Your task to perform on an android device: See recent photos Image 0: 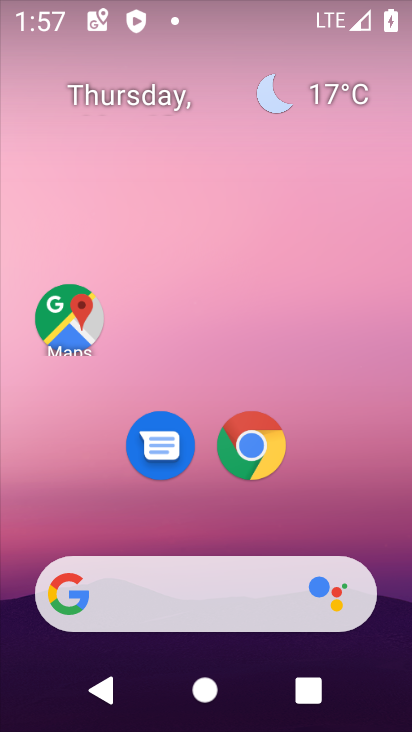
Step 0: drag from (333, 482) to (226, 172)
Your task to perform on an android device: See recent photos Image 1: 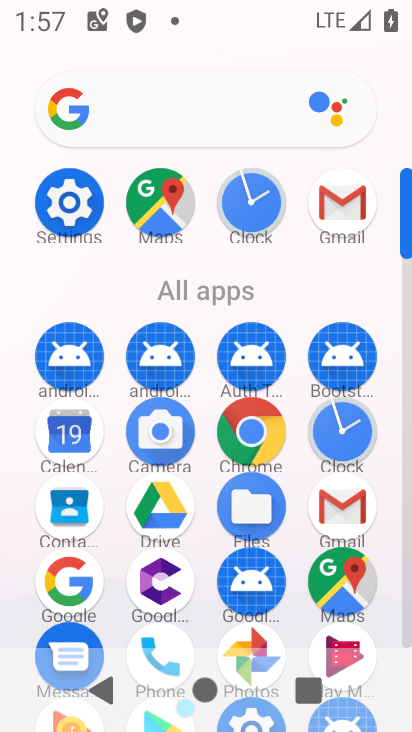
Step 1: drag from (122, 535) to (112, 302)
Your task to perform on an android device: See recent photos Image 2: 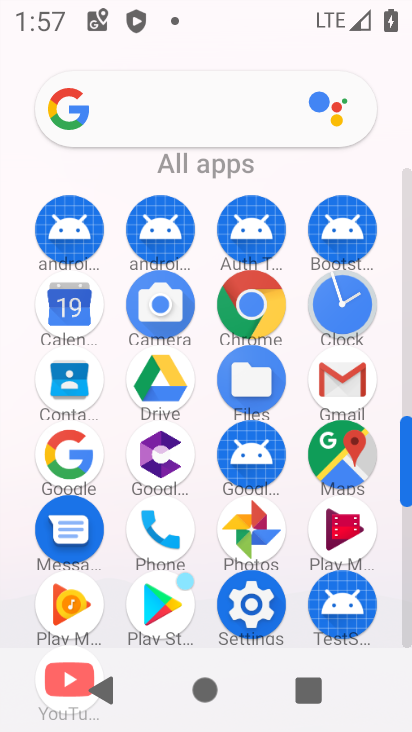
Step 2: click (258, 528)
Your task to perform on an android device: See recent photos Image 3: 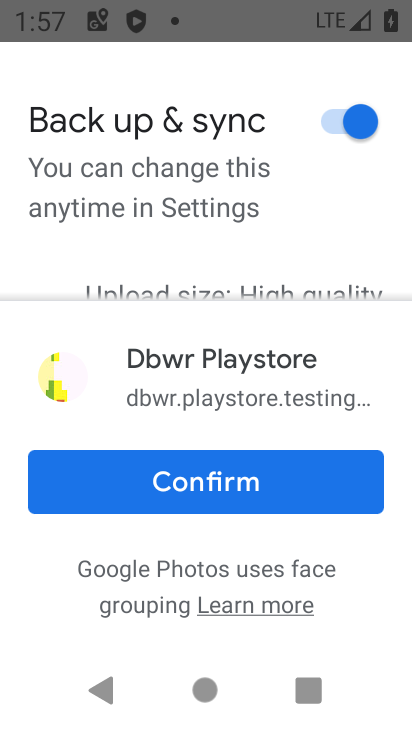
Step 3: click (214, 482)
Your task to perform on an android device: See recent photos Image 4: 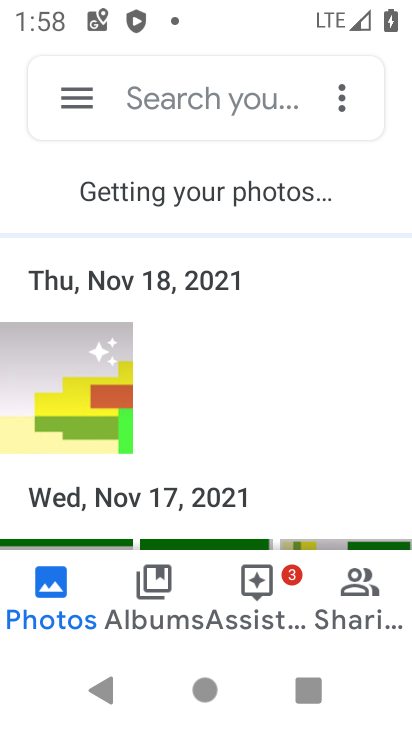
Step 4: click (226, 179)
Your task to perform on an android device: See recent photos Image 5: 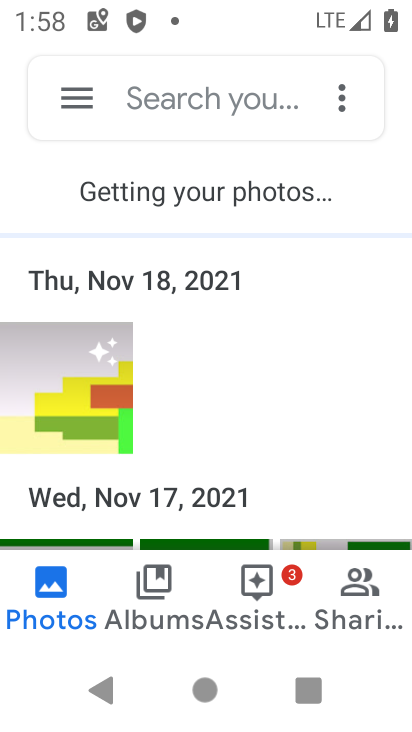
Step 5: click (222, 375)
Your task to perform on an android device: See recent photos Image 6: 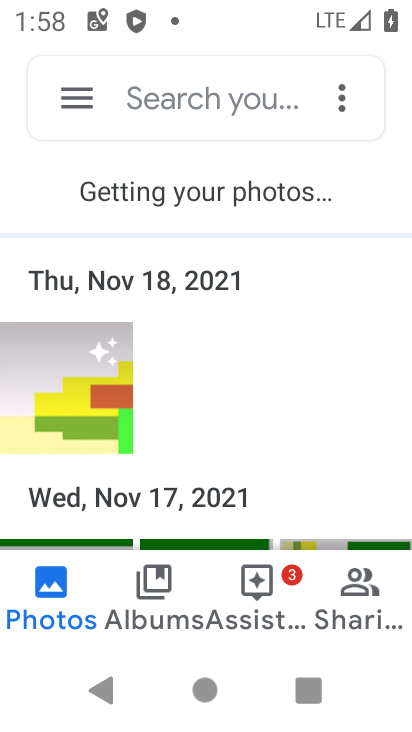
Step 6: task complete